Your task to perform on an android device: View the shopping cart on walmart. Search for rayovac triple a on walmart, select the first entry, and add it to the cart. Image 0: 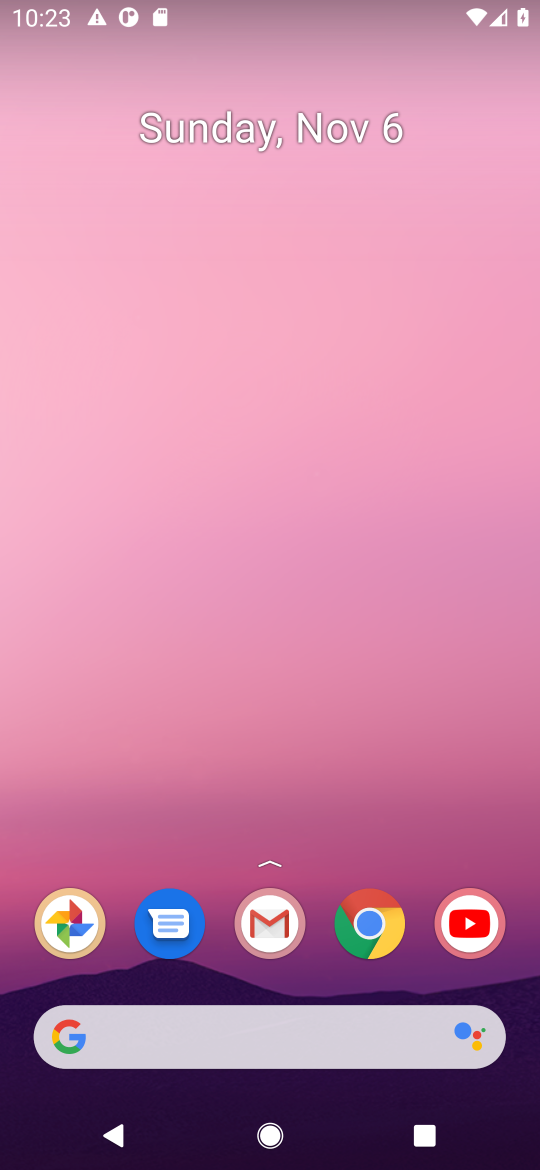
Step 0: click (370, 926)
Your task to perform on an android device: View the shopping cart on walmart. Search for rayovac triple a on walmart, select the first entry, and add it to the cart. Image 1: 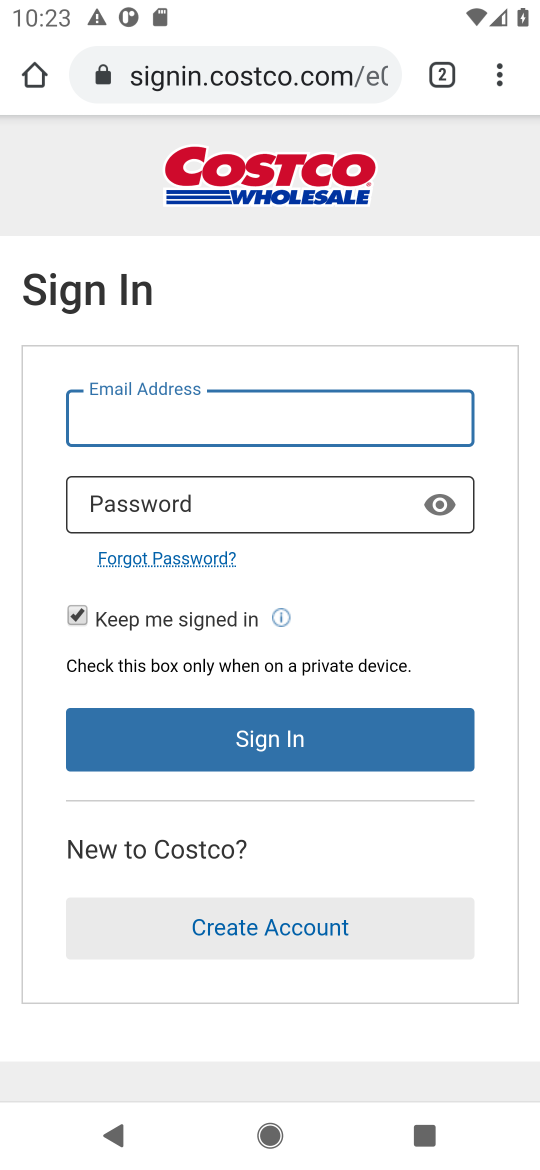
Step 1: click (230, 78)
Your task to perform on an android device: View the shopping cart on walmart. Search for rayovac triple a on walmart, select the first entry, and add it to the cart. Image 2: 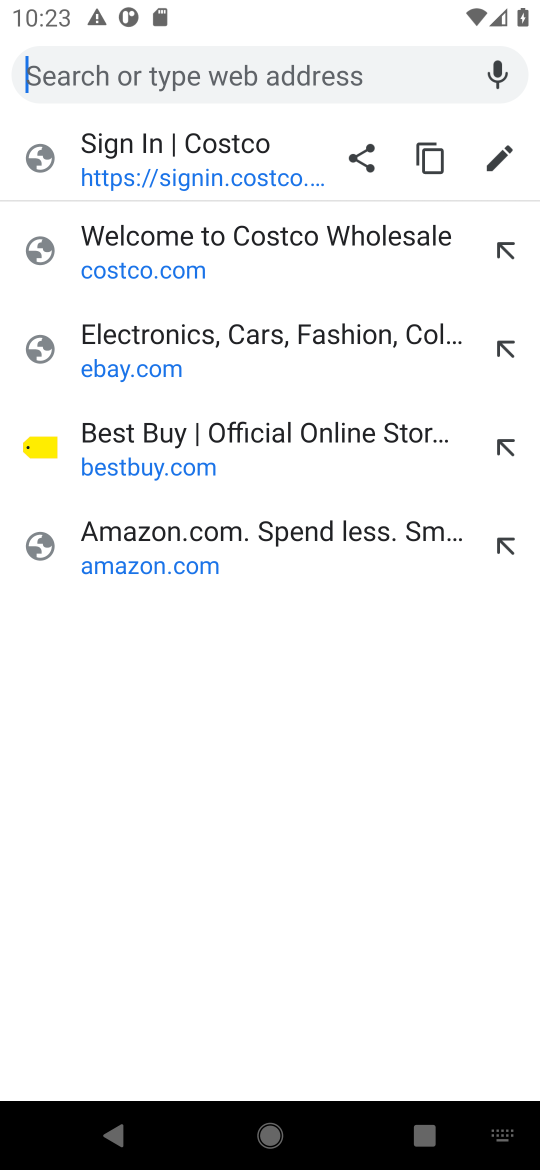
Step 2: type "walmart.com"
Your task to perform on an android device: View the shopping cart on walmart. Search for rayovac triple a on walmart, select the first entry, and add it to the cart. Image 3: 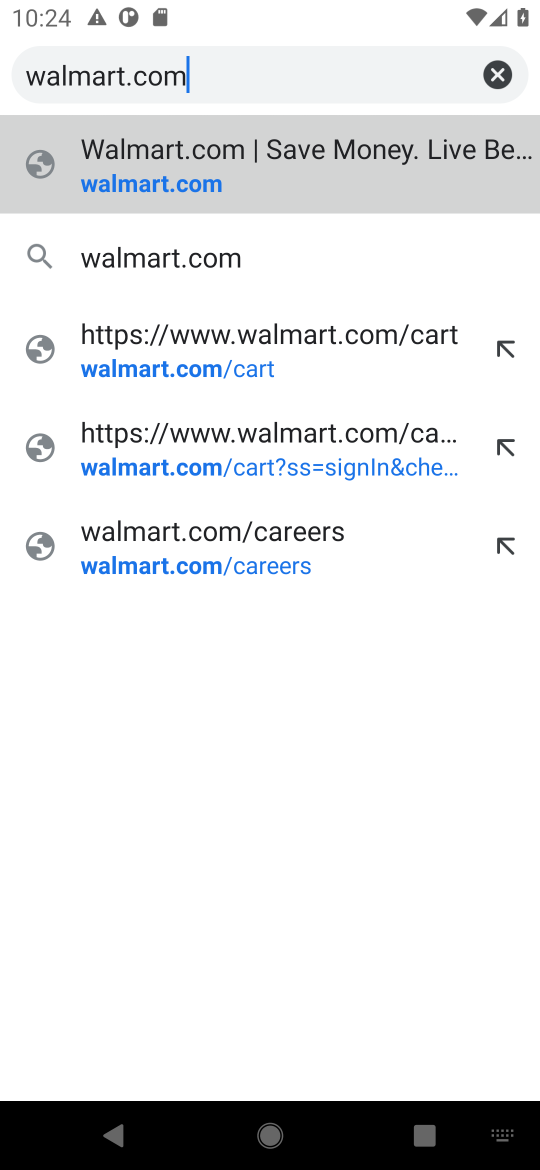
Step 3: click (139, 190)
Your task to perform on an android device: View the shopping cart on walmart. Search for rayovac triple a on walmart, select the first entry, and add it to the cart. Image 4: 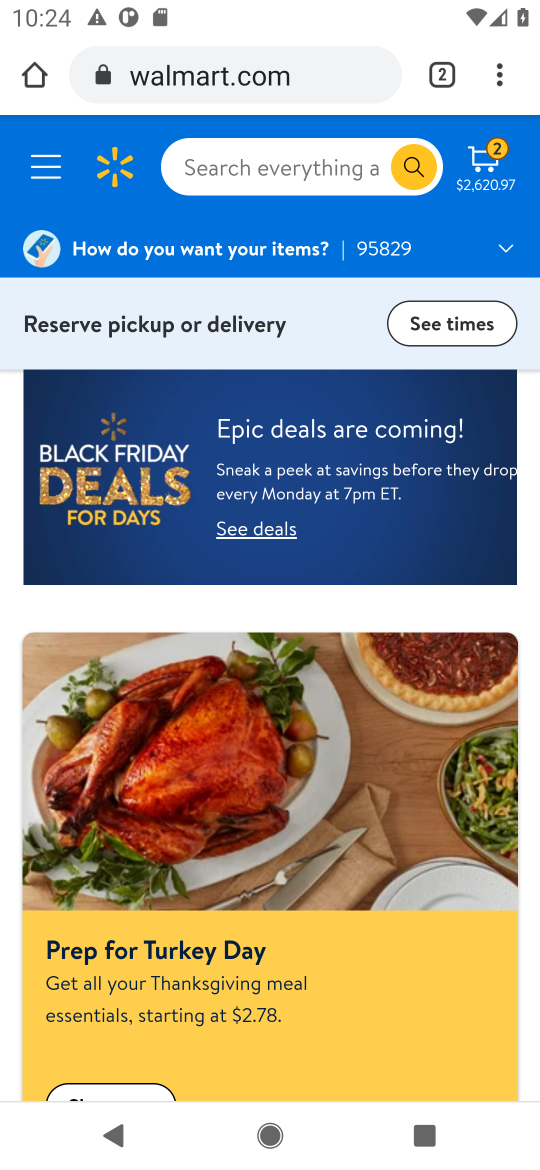
Step 4: click (494, 165)
Your task to perform on an android device: View the shopping cart on walmart. Search for rayovac triple a on walmart, select the first entry, and add it to the cart. Image 5: 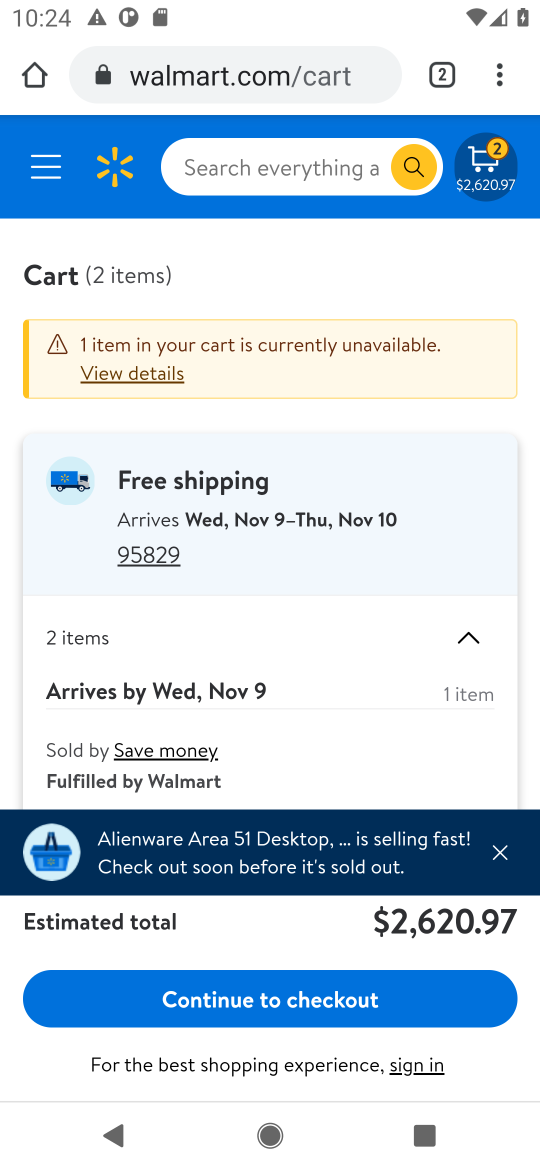
Step 5: click (195, 178)
Your task to perform on an android device: View the shopping cart on walmart. Search for rayovac triple a on walmart, select the first entry, and add it to the cart. Image 6: 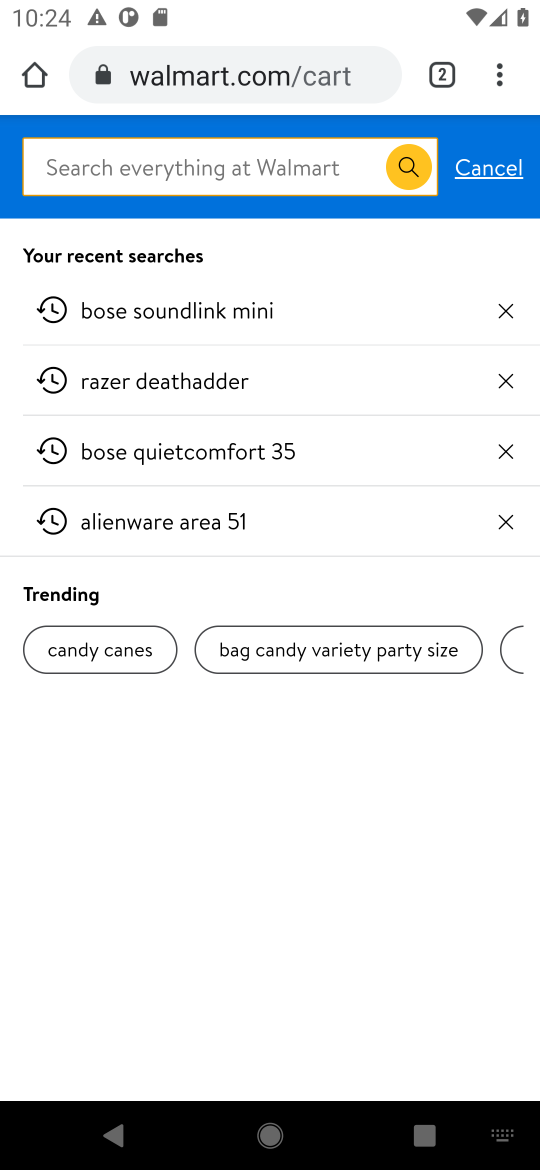
Step 6: type "rayovac triple a"
Your task to perform on an android device: View the shopping cart on walmart. Search for rayovac triple a on walmart, select the first entry, and add it to the cart. Image 7: 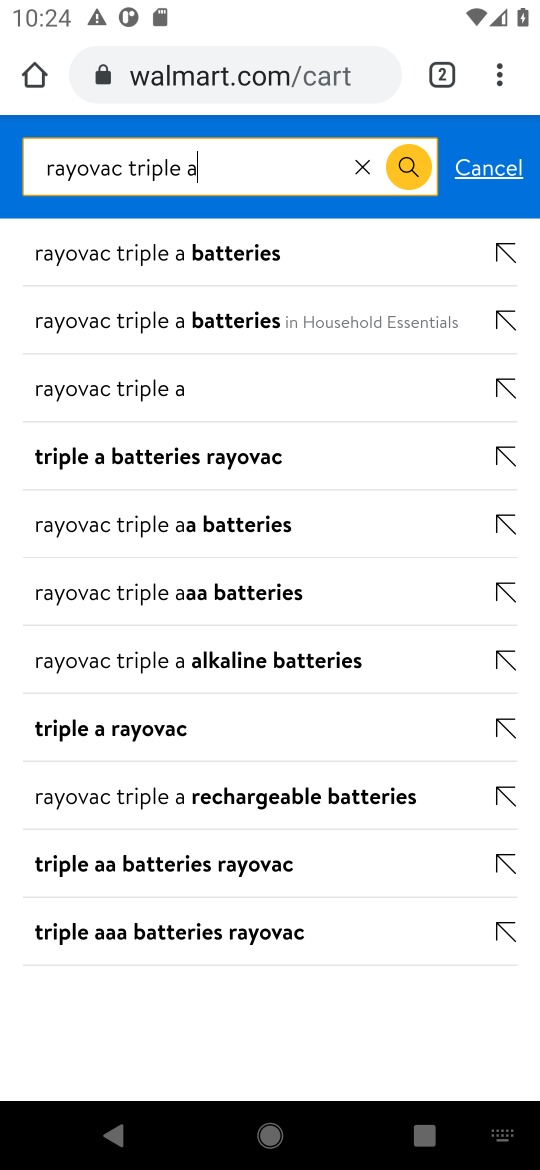
Step 7: click (146, 387)
Your task to perform on an android device: View the shopping cart on walmart. Search for rayovac triple a on walmart, select the first entry, and add it to the cart. Image 8: 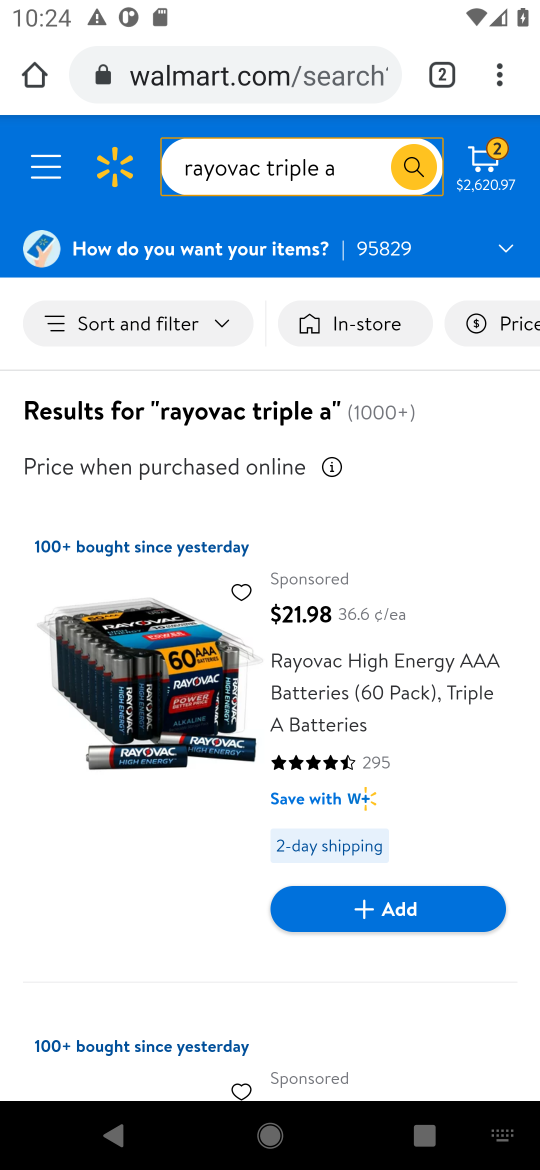
Step 8: click (370, 915)
Your task to perform on an android device: View the shopping cart on walmart. Search for rayovac triple a on walmart, select the first entry, and add it to the cart. Image 9: 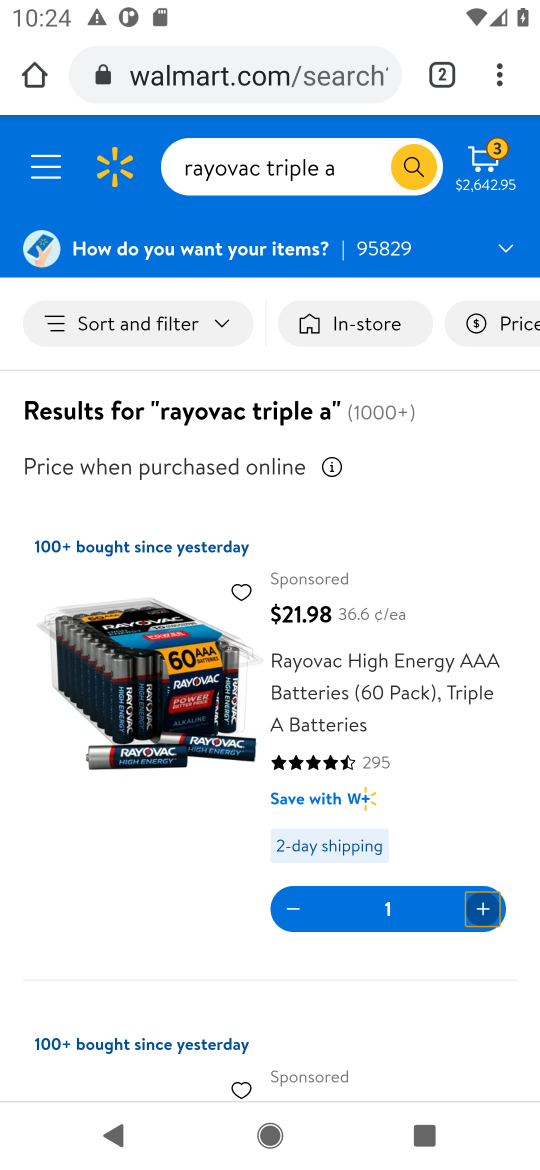
Step 9: click (474, 157)
Your task to perform on an android device: View the shopping cart on walmart. Search for rayovac triple a on walmart, select the first entry, and add it to the cart. Image 10: 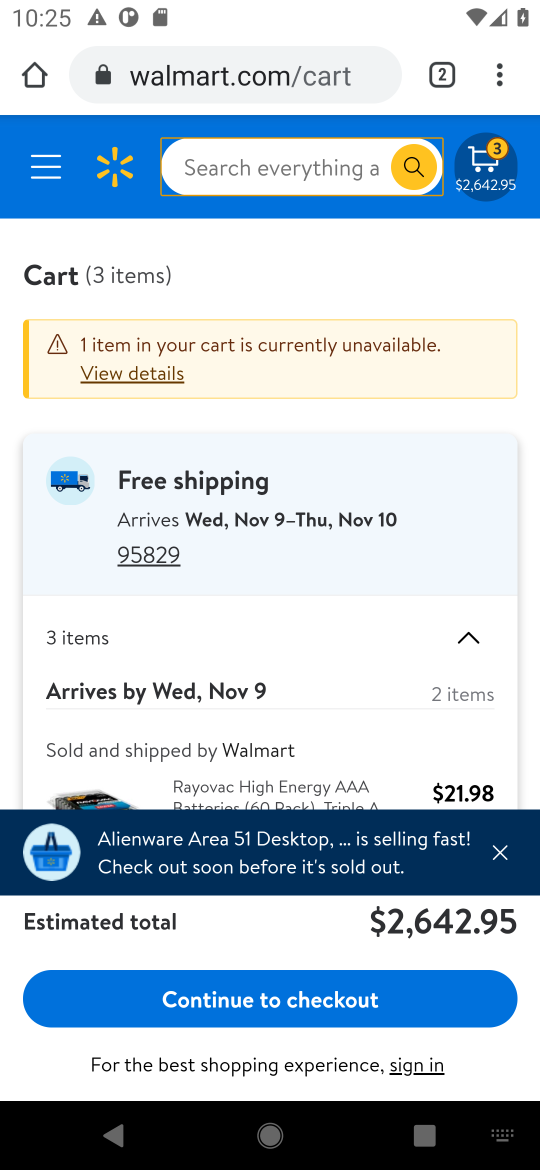
Step 10: click (365, 519)
Your task to perform on an android device: View the shopping cart on walmart. Search for rayovac triple a on walmart, select the first entry, and add it to the cart. Image 11: 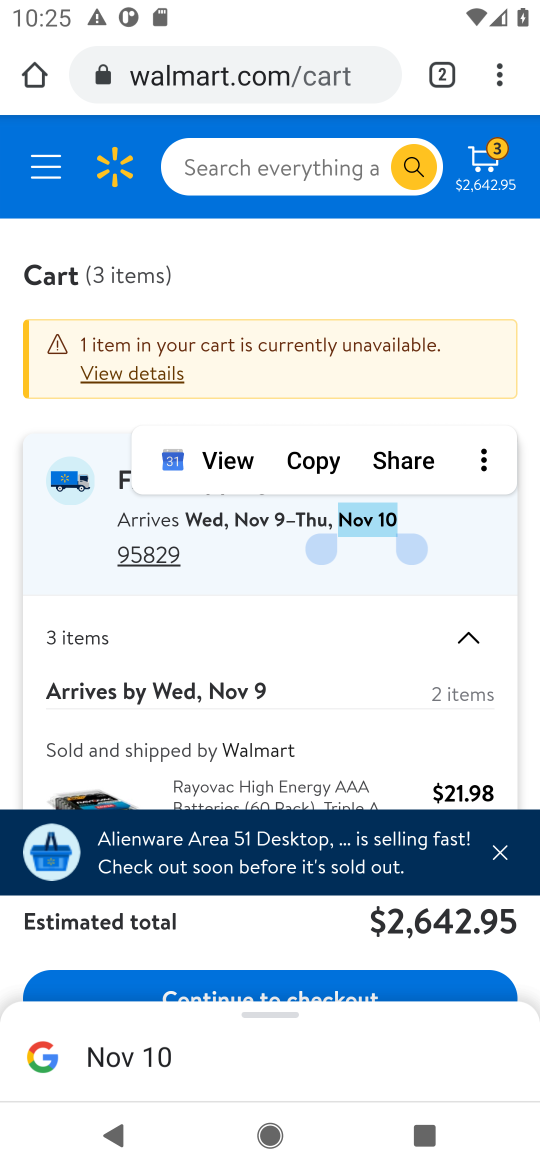
Step 11: task complete